Your task to perform on an android device: What's the weather like in Mexico City? Image 0: 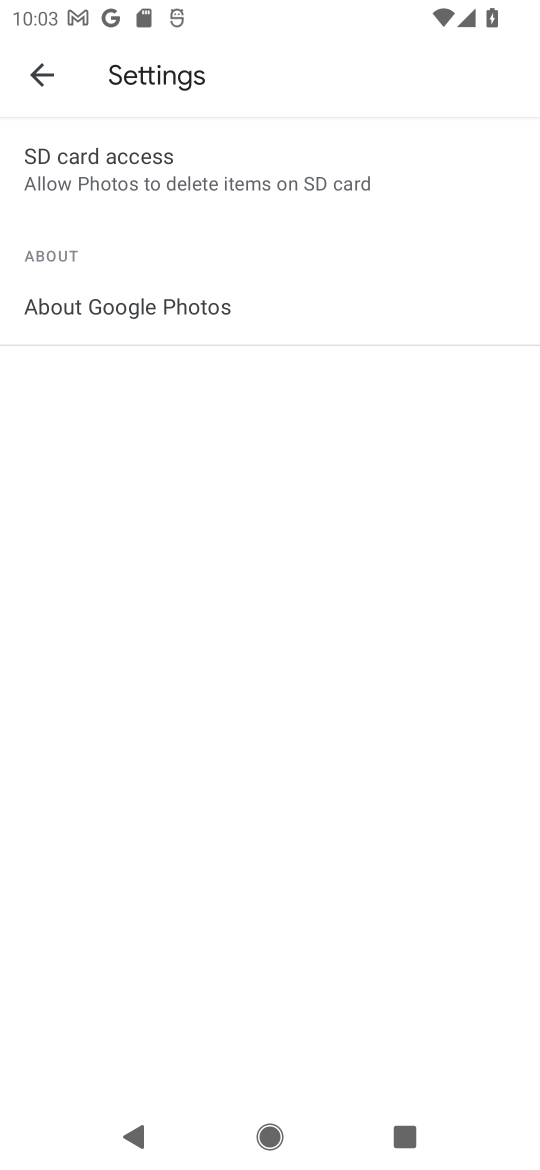
Step 0: press home button
Your task to perform on an android device: What's the weather like in Mexico City? Image 1: 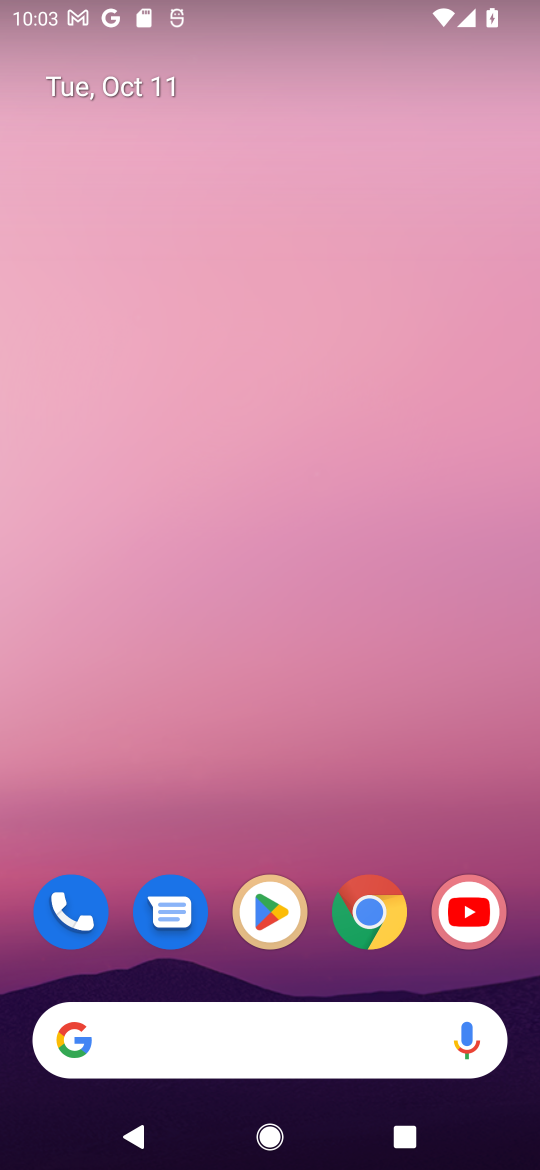
Step 1: click (371, 911)
Your task to perform on an android device: What's the weather like in Mexico City? Image 2: 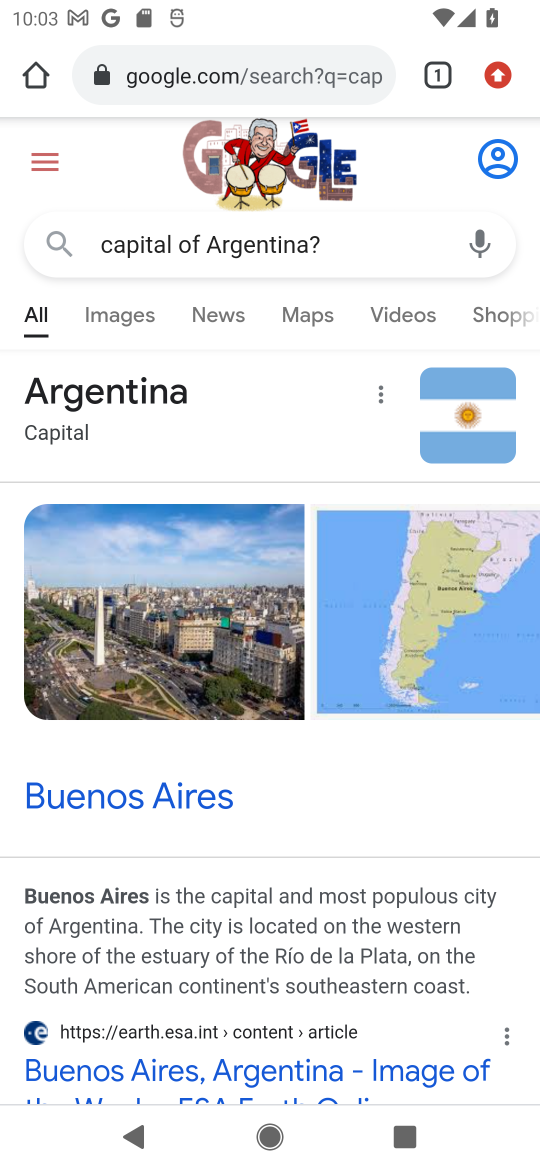
Step 2: click (230, 51)
Your task to perform on an android device: What's the weather like in Mexico City? Image 3: 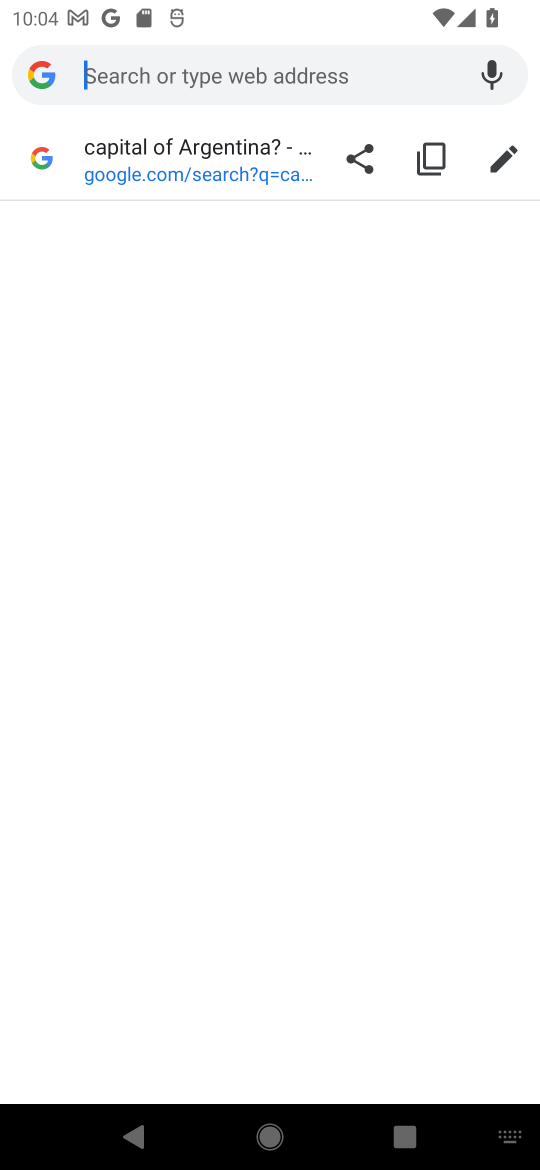
Step 3: type " weather like in Mexico City?"
Your task to perform on an android device: What's the weather like in Mexico City? Image 4: 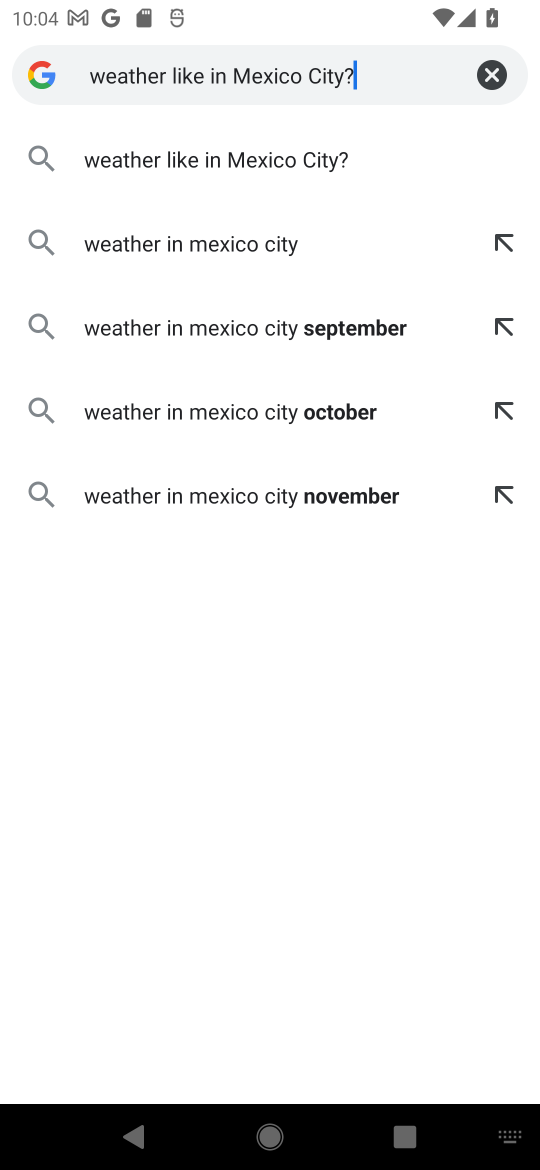
Step 4: click (200, 252)
Your task to perform on an android device: What's the weather like in Mexico City? Image 5: 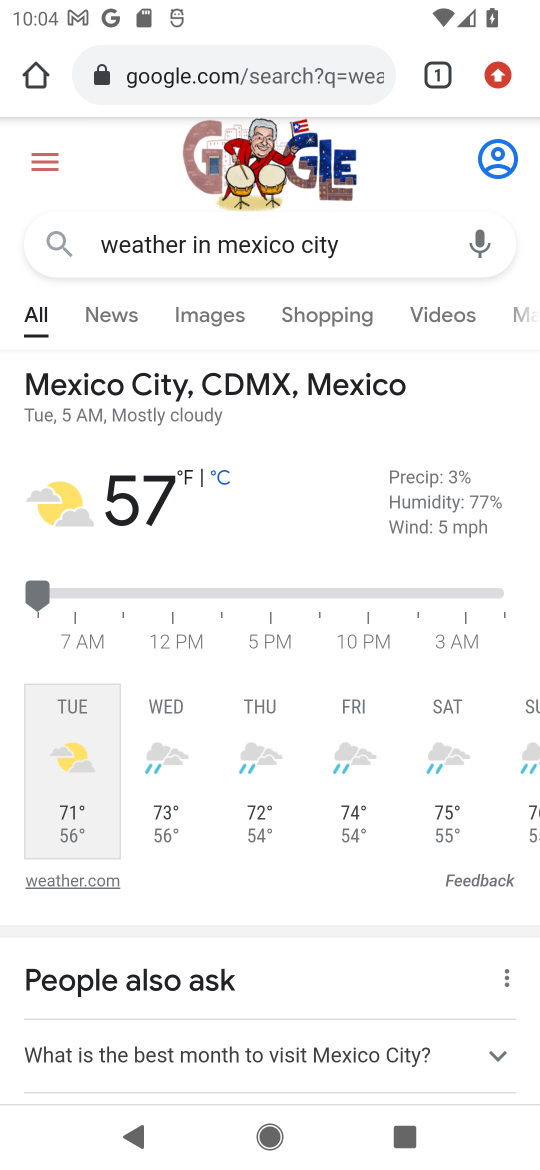
Step 5: task complete